Your task to perform on an android device: remove spam from my inbox in the gmail app Image 0: 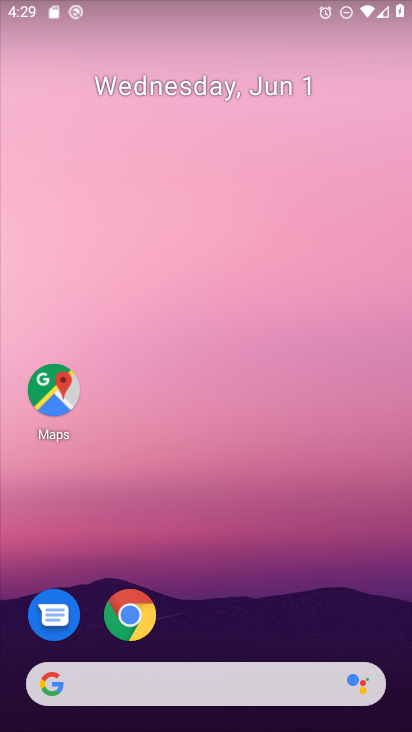
Step 0: drag from (213, 650) to (260, 4)
Your task to perform on an android device: remove spam from my inbox in the gmail app Image 1: 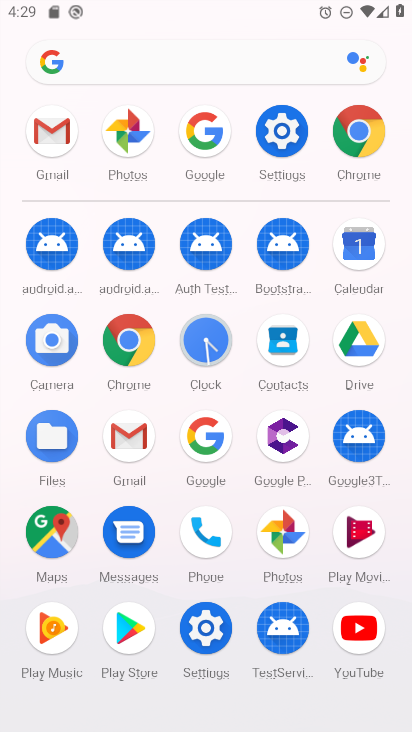
Step 1: click (128, 428)
Your task to perform on an android device: remove spam from my inbox in the gmail app Image 2: 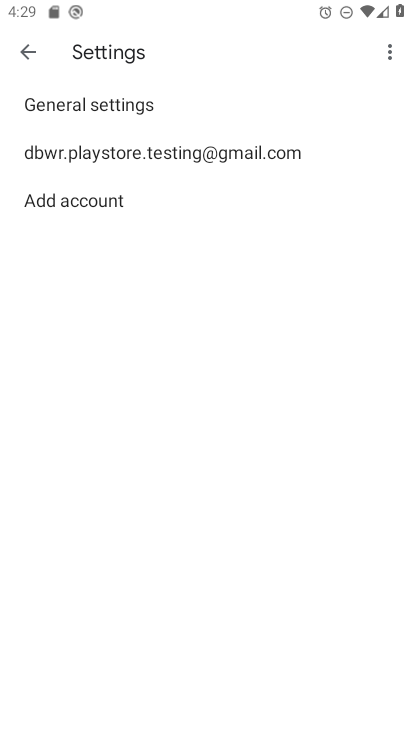
Step 2: click (28, 44)
Your task to perform on an android device: remove spam from my inbox in the gmail app Image 3: 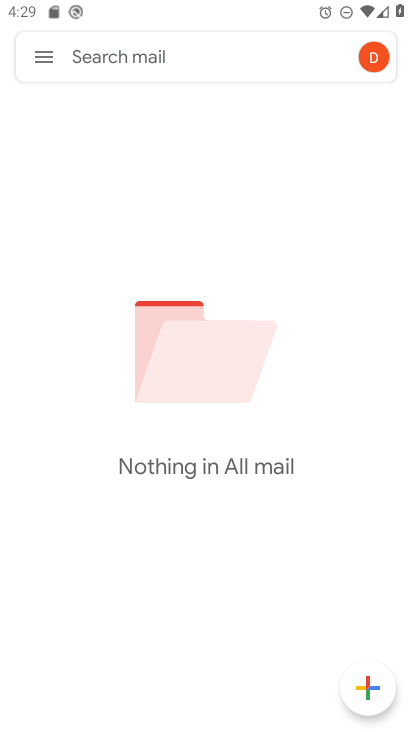
Step 3: click (51, 57)
Your task to perform on an android device: remove spam from my inbox in the gmail app Image 4: 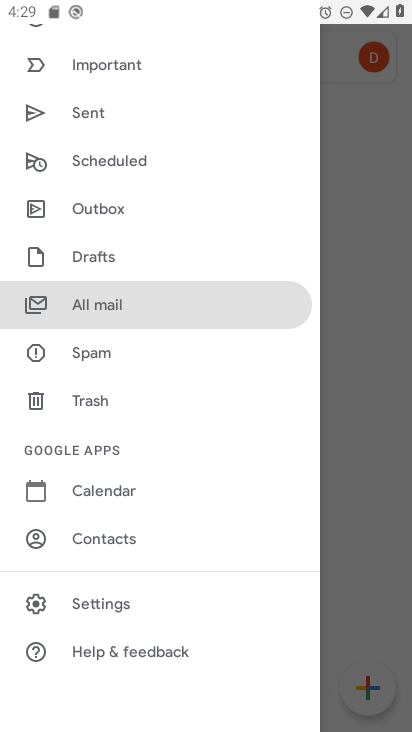
Step 4: click (104, 354)
Your task to perform on an android device: remove spam from my inbox in the gmail app Image 5: 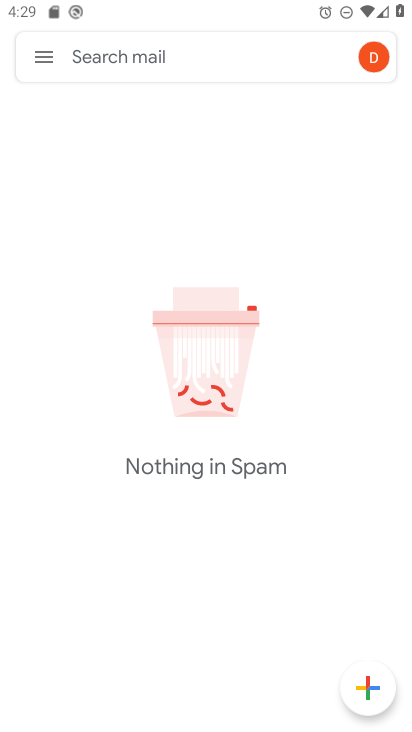
Step 5: task complete